Your task to perform on an android device: What is the news today? Image 0: 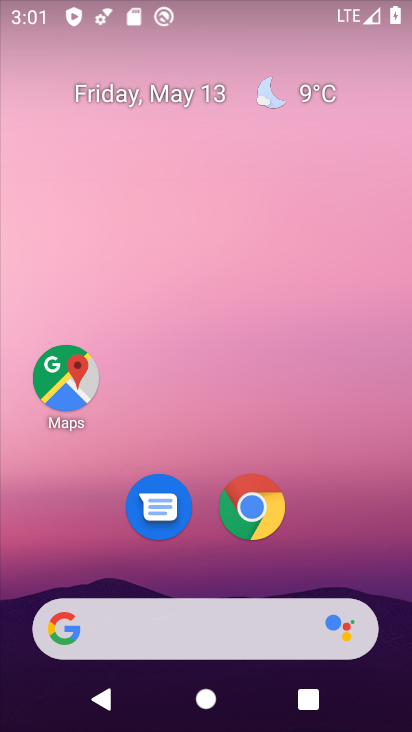
Step 0: drag from (278, 507) to (301, 110)
Your task to perform on an android device: What is the news today? Image 1: 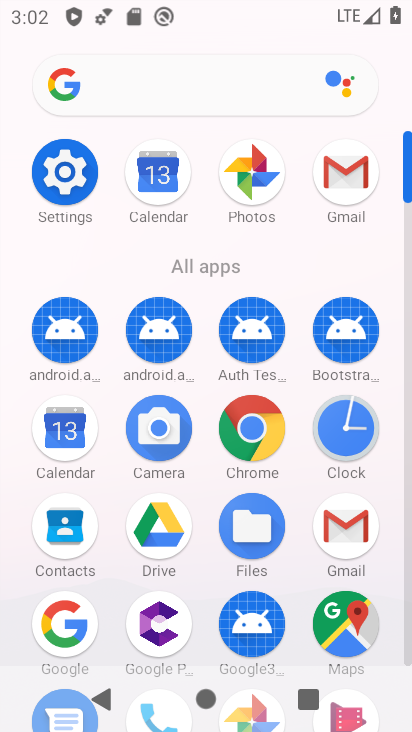
Step 1: press home button
Your task to perform on an android device: What is the news today? Image 2: 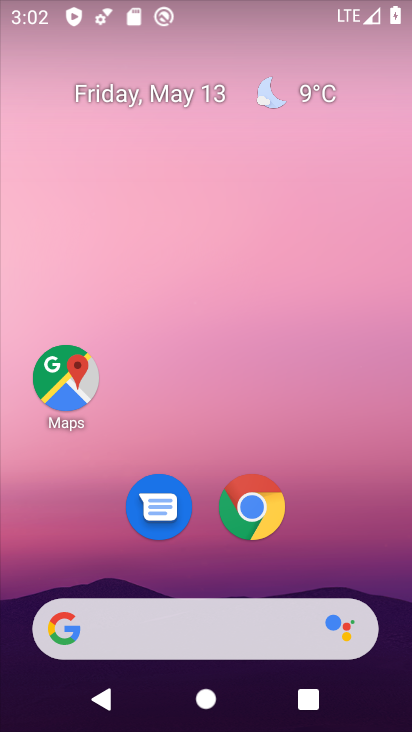
Step 2: click (245, 640)
Your task to perform on an android device: What is the news today? Image 3: 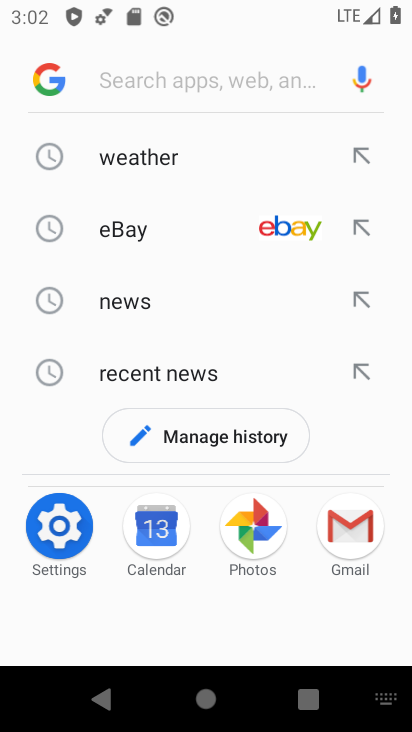
Step 3: type "news today"
Your task to perform on an android device: What is the news today? Image 4: 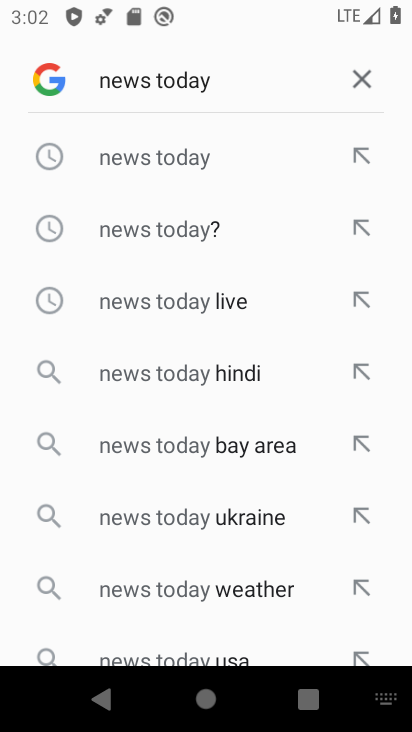
Step 4: click (216, 155)
Your task to perform on an android device: What is the news today? Image 5: 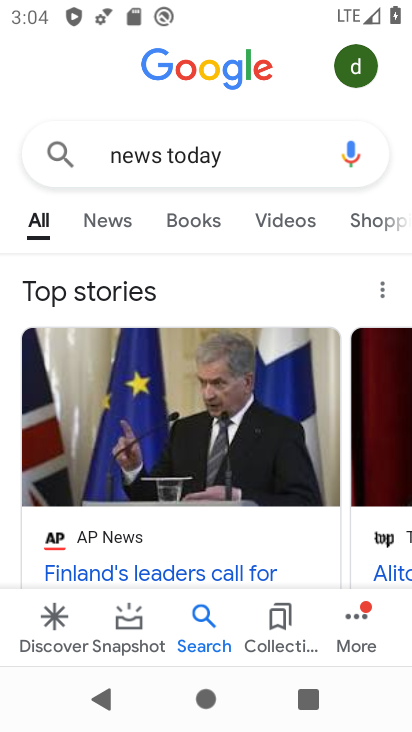
Step 5: task complete